Your task to perform on an android device: Open Youtube and go to "Your channel" Image 0: 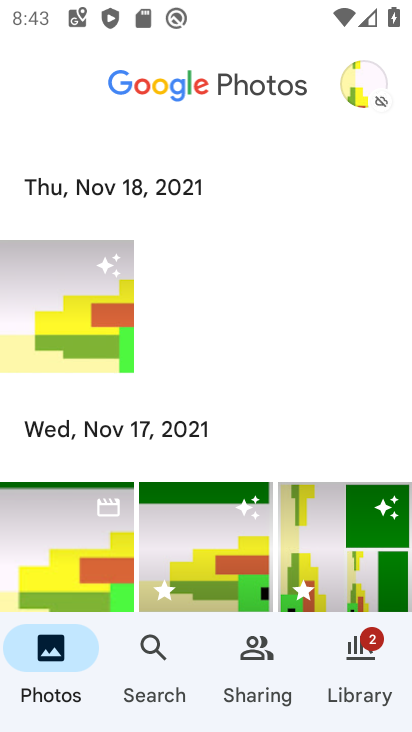
Step 0: press home button
Your task to perform on an android device: Open Youtube and go to "Your channel" Image 1: 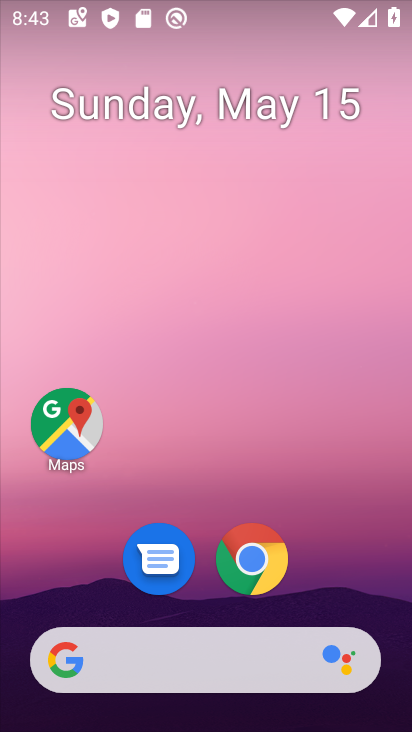
Step 1: drag from (370, 548) to (394, 54)
Your task to perform on an android device: Open Youtube and go to "Your channel" Image 2: 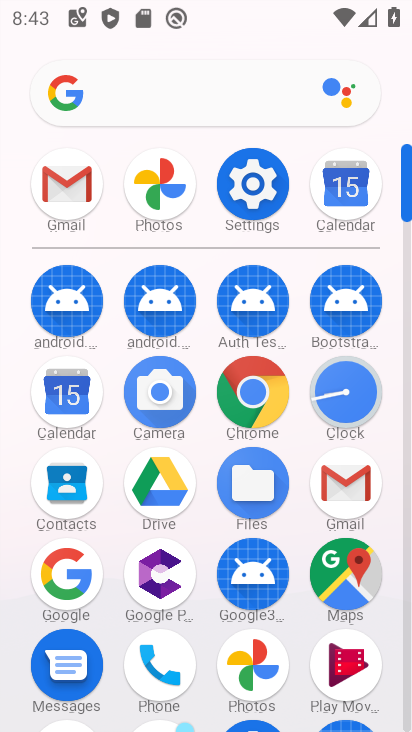
Step 2: click (406, 716)
Your task to perform on an android device: Open Youtube and go to "Your channel" Image 3: 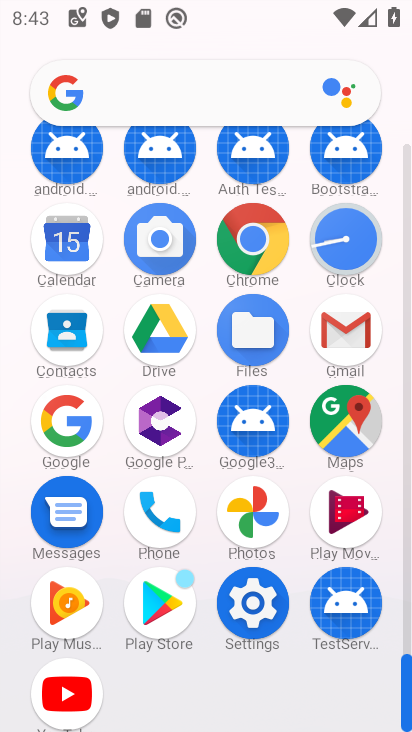
Step 3: click (86, 721)
Your task to perform on an android device: Open Youtube and go to "Your channel" Image 4: 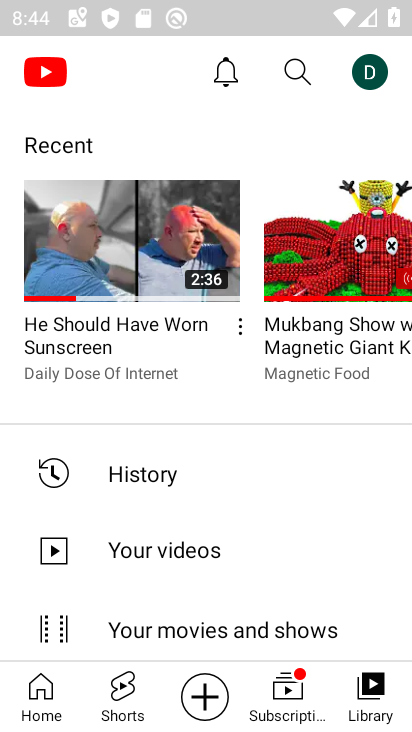
Step 4: click (366, 77)
Your task to perform on an android device: Open Youtube and go to "Your channel" Image 5: 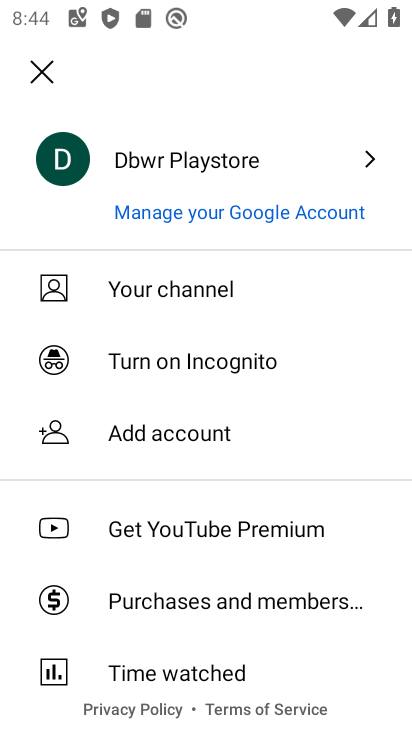
Step 5: click (219, 276)
Your task to perform on an android device: Open Youtube and go to "Your channel" Image 6: 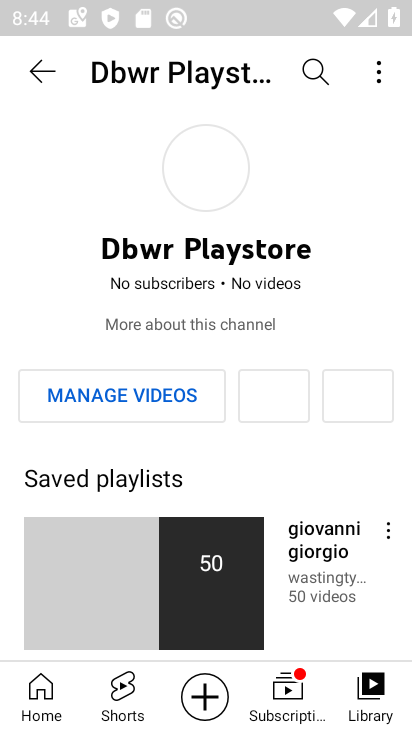
Step 6: task complete